Your task to perform on an android device: Open calendar and show me the fourth week of next month Image 0: 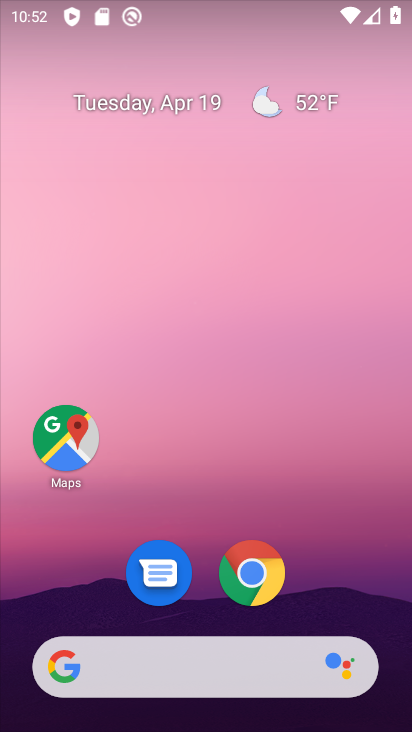
Step 0: drag from (208, 720) to (208, 60)
Your task to perform on an android device: Open calendar and show me the fourth week of next month Image 1: 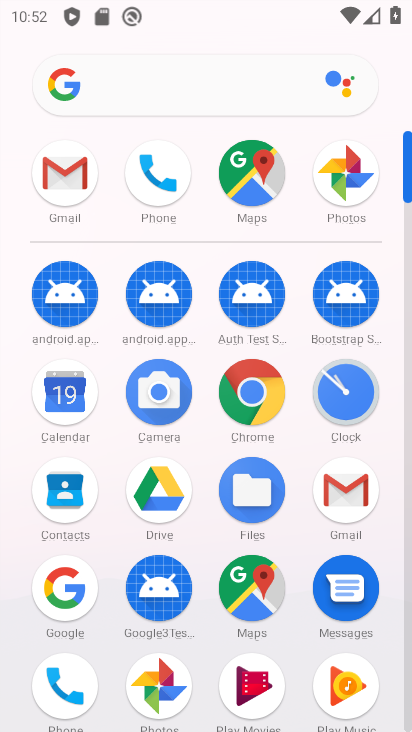
Step 1: click (62, 401)
Your task to perform on an android device: Open calendar and show me the fourth week of next month Image 2: 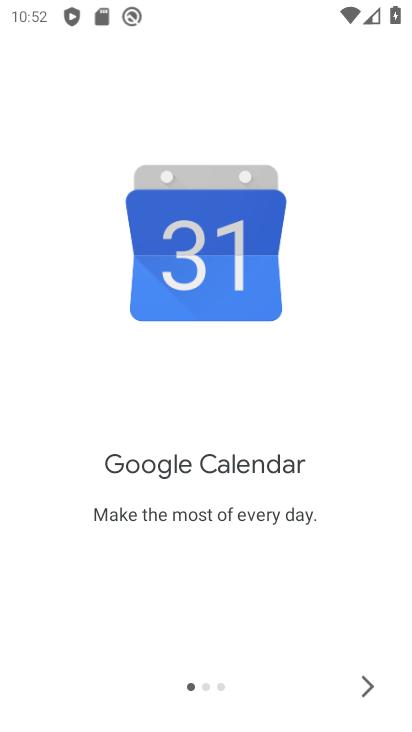
Step 2: click (370, 683)
Your task to perform on an android device: Open calendar and show me the fourth week of next month Image 3: 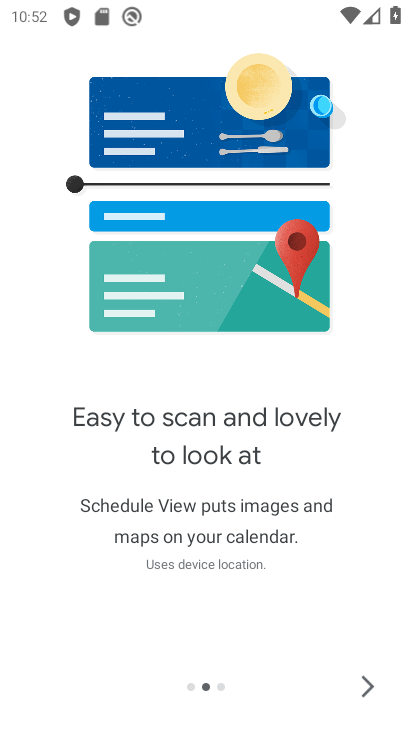
Step 3: click (370, 687)
Your task to perform on an android device: Open calendar and show me the fourth week of next month Image 4: 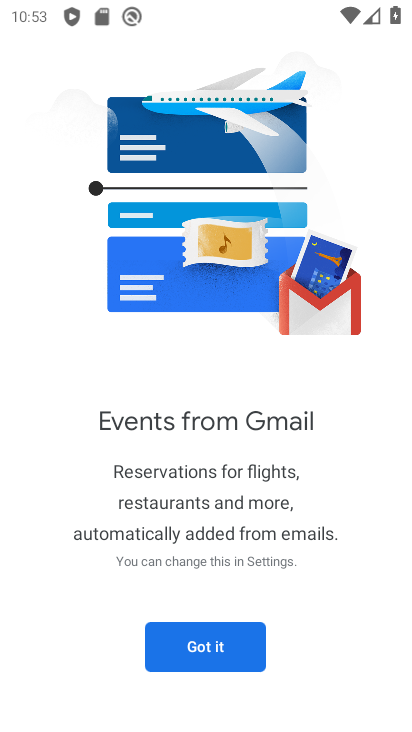
Step 4: click (217, 644)
Your task to perform on an android device: Open calendar and show me the fourth week of next month Image 5: 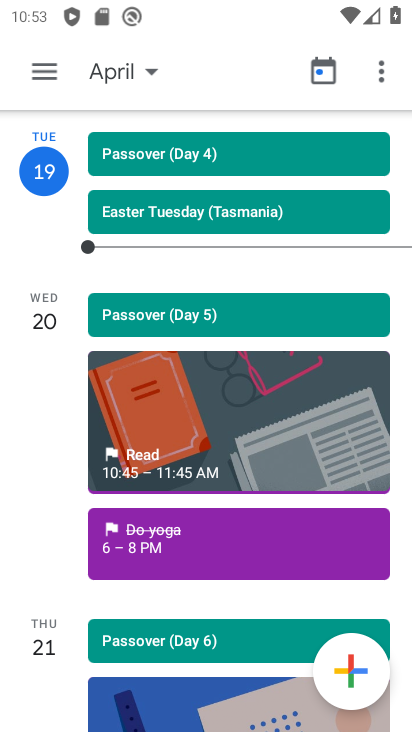
Step 5: click (109, 71)
Your task to perform on an android device: Open calendar and show me the fourth week of next month Image 6: 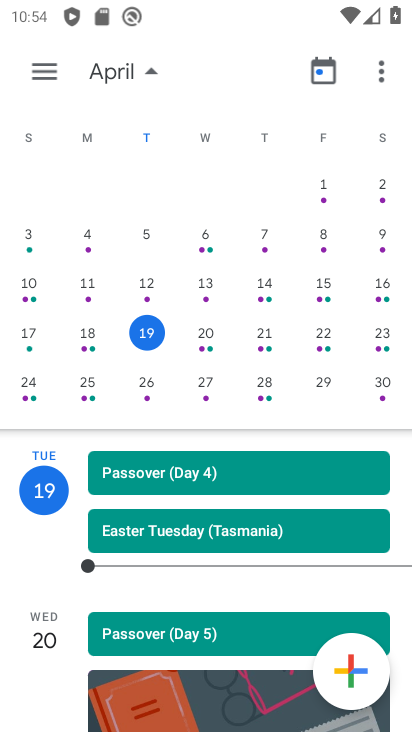
Step 6: drag from (351, 292) to (7, 284)
Your task to perform on an android device: Open calendar and show me the fourth week of next month Image 7: 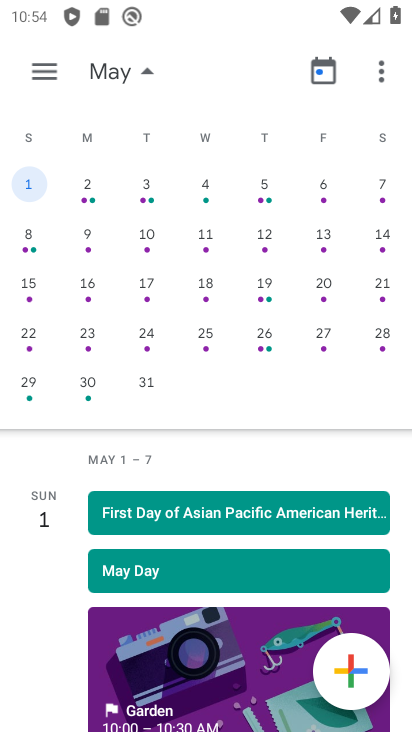
Step 7: click (83, 332)
Your task to perform on an android device: Open calendar and show me the fourth week of next month Image 8: 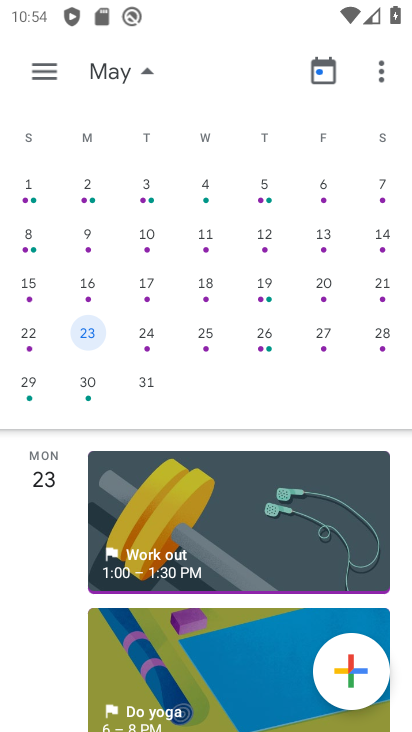
Step 8: task complete